Your task to perform on an android device: delete a single message in the gmail app Image 0: 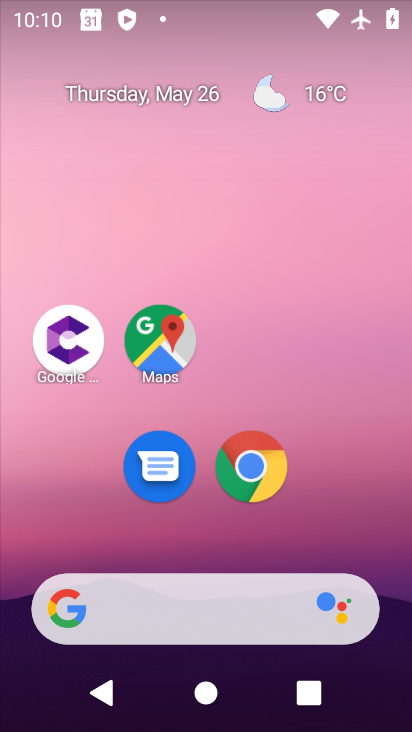
Step 0: drag from (320, 511) to (222, 93)
Your task to perform on an android device: delete a single message in the gmail app Image 1: 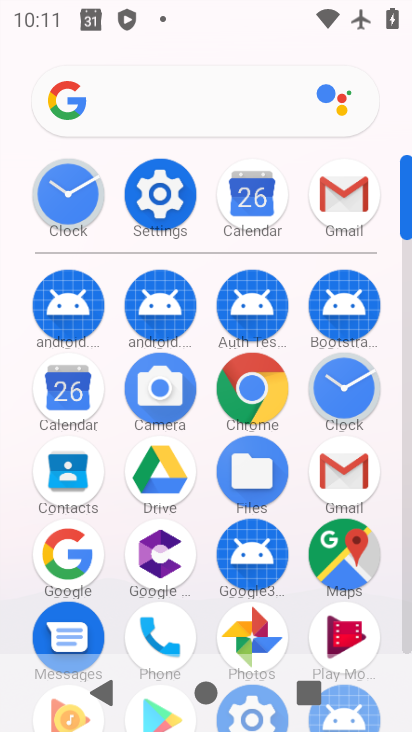
Step 1: click (349, 200)
Your task to perform on an android device: delete a single message in the gmail app Image 2: 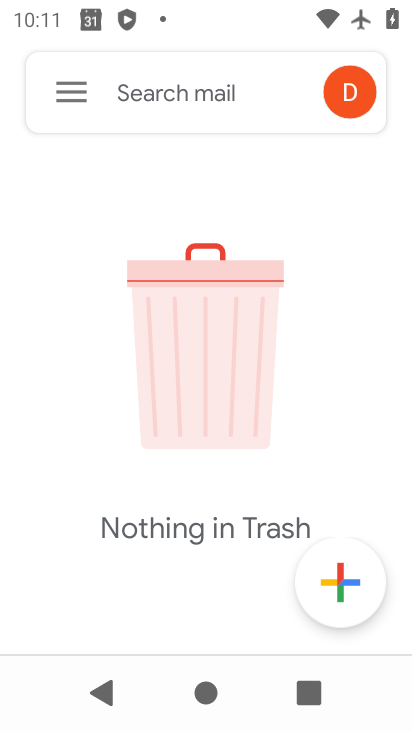
Step 2: click (69, 87)
Your task to perform on an android device: delete a single message in the gmail app Image 3: 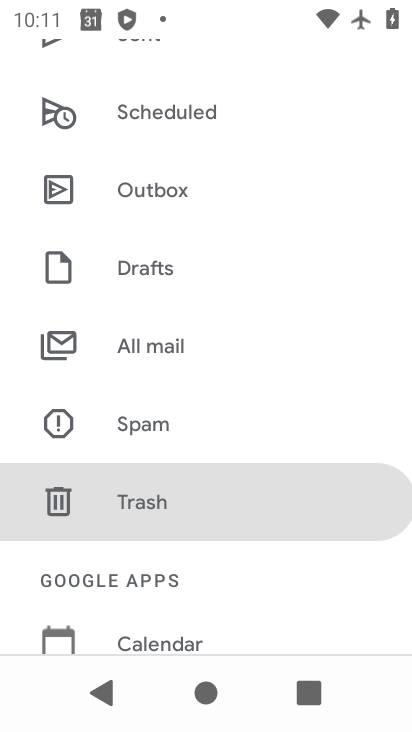
Step 3: click (139, 349)
Your task to perform on an android device: delete a single message in the gmail app Image 4: 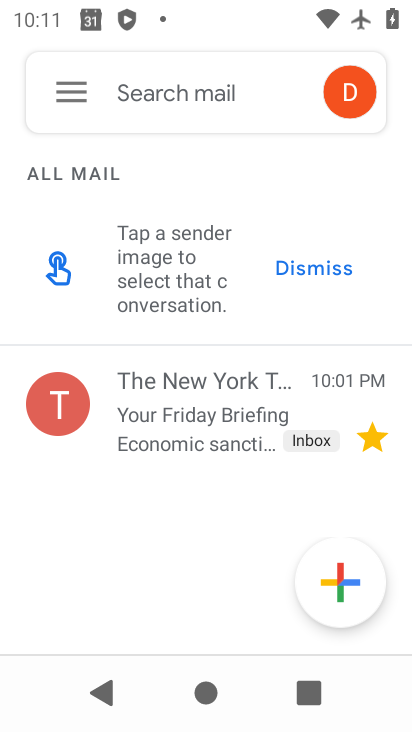
Step 4: click (175, 368)
Your task to perform on an android device: delete a single message in the gmail app Image 5: 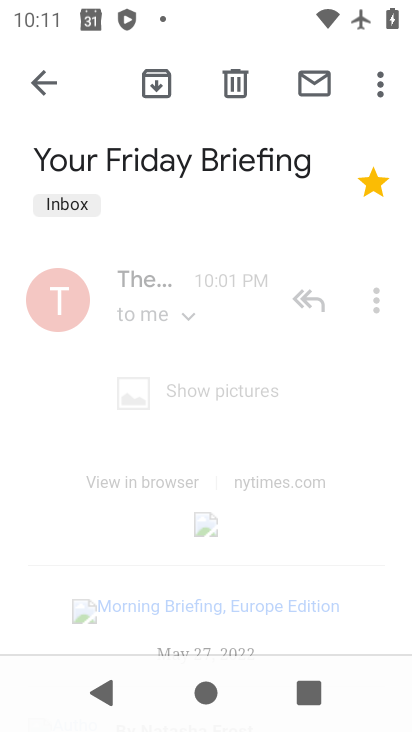
Step 5: click (229, 85)
Your task to perform on an android device: delete a single message in the gmail app Image 6: 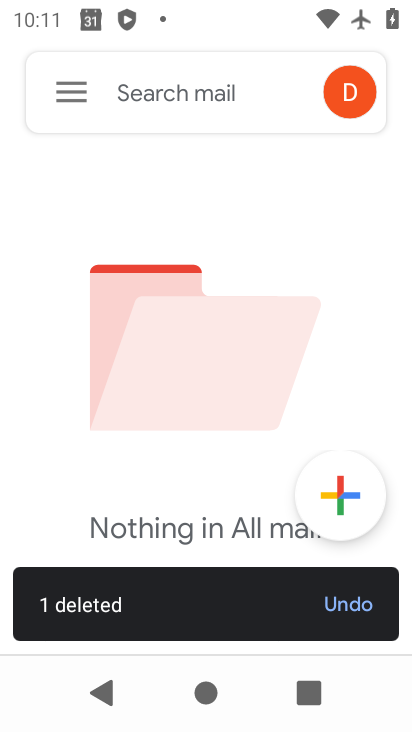
Step 6: task complete